Your task to perform on an android device: Go to Wikipedia Image 0: 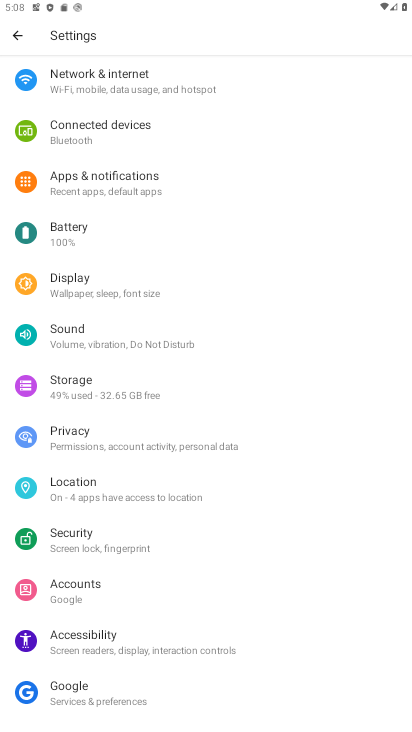
Step 0: press home button
Your task to perform on an android device: Go to Wikipedia Image 1: 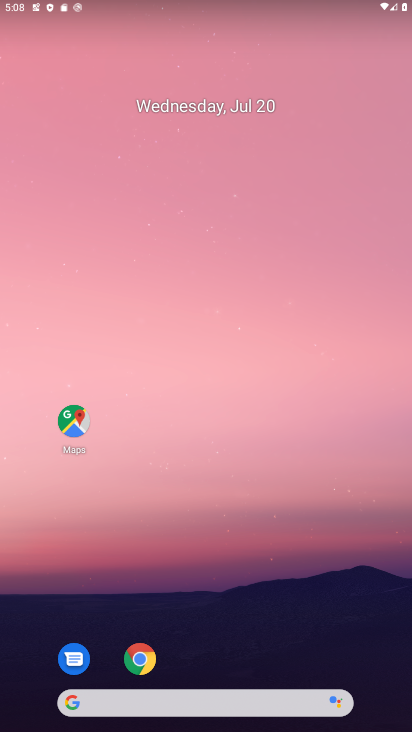
Step 1: drag from (184, 694) to (156, 362)
Your task to perform on an android device: Go to Wikipedia Image 2: 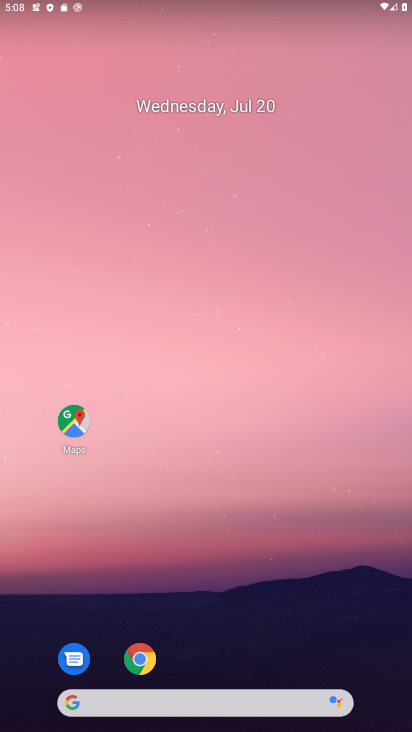
Step 2: click (142, 657)
Your task to perform on an android device: Go to Wikipedia Image 3: 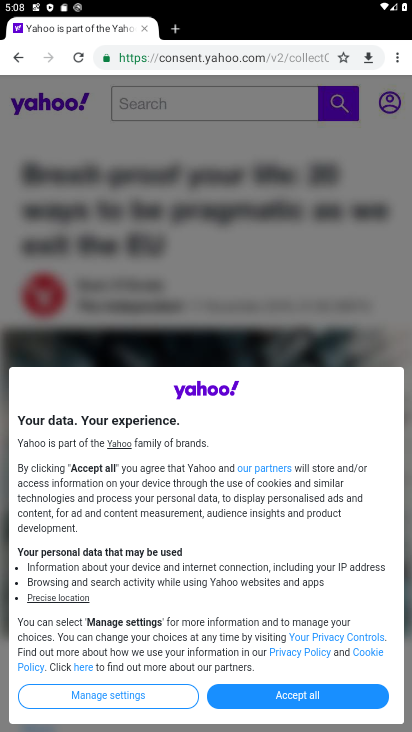
Step 3: click (143, 31)
Your task to perform on an android device: Go to Wikipedia Image 4: 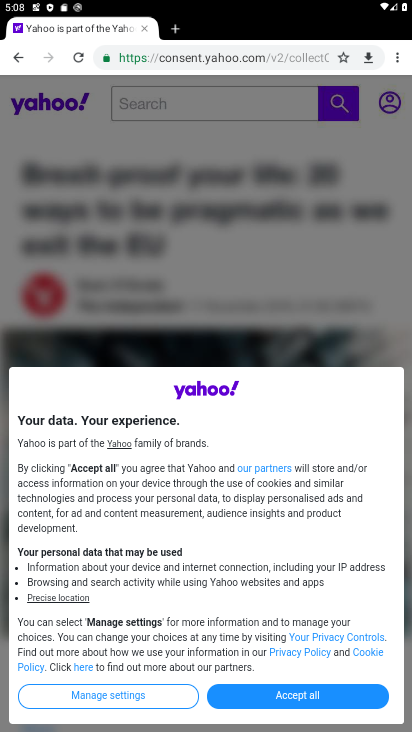
Step 4: click (147, 31)
Your task to perform on an android device: Go to Wikipedia Image 5: 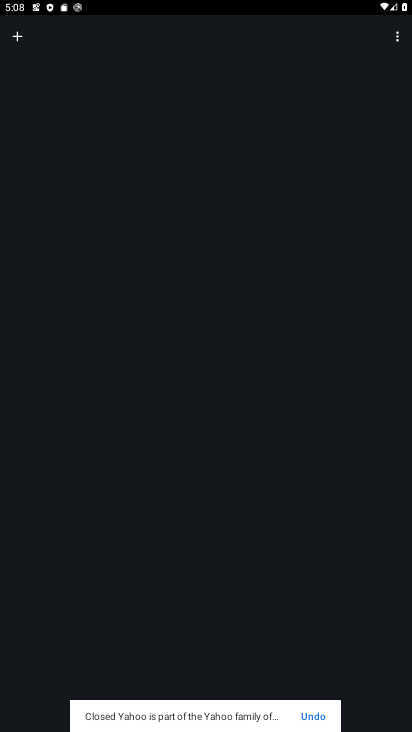
Step 5: click (11, 38)
Your task to perform on an android device: Go to Wikipedia Image 6: 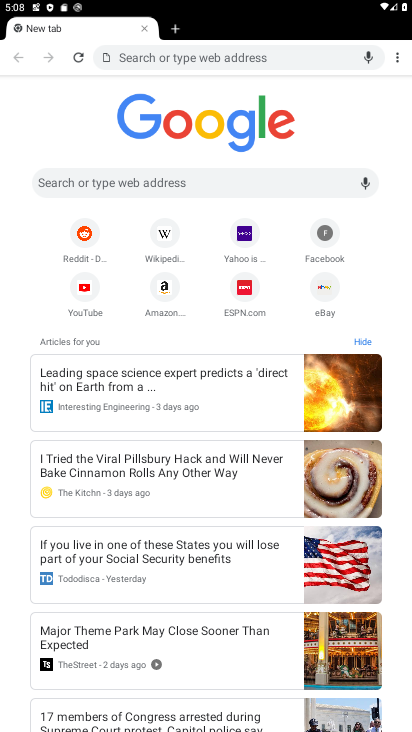
Step 6: click (162, 248)
Your task to perform on an android device: Go to Wikipedia Image 7: 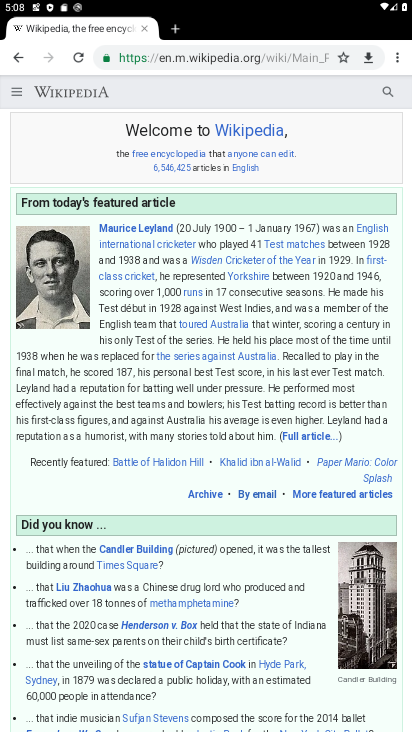
Step 7: task complete